Your task to perform on an android device: toggle translation in the chrome app Image 0: 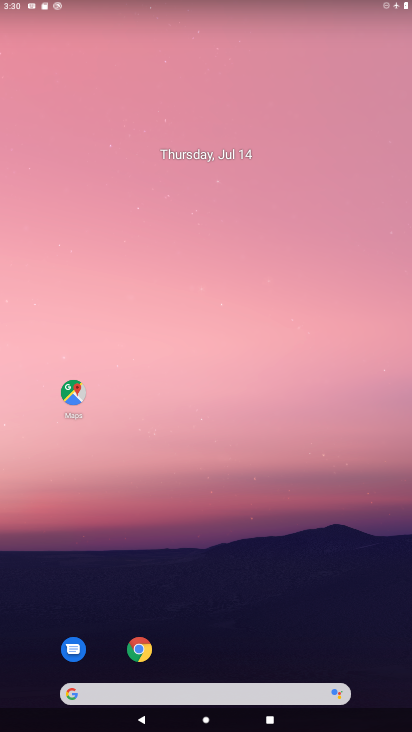
Step 0: drag from (249, 652) to (227, 247)
Your task to perform on an android device: toggle translation in the chrome app Image 1: 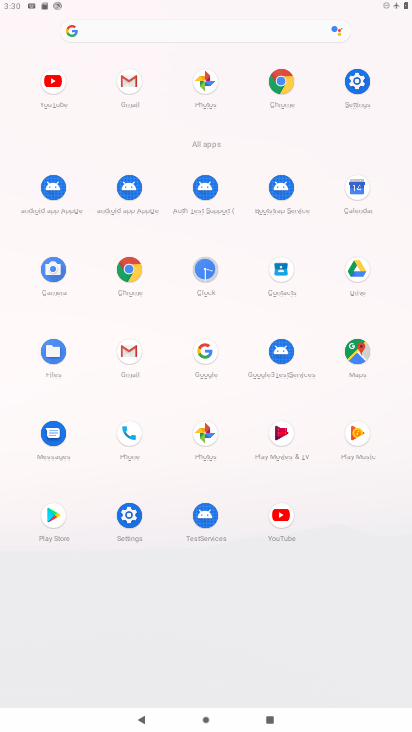
Step 1: click (272, 75)
Your task to perform on an android device: toggle translation in the chrome app Image 2: 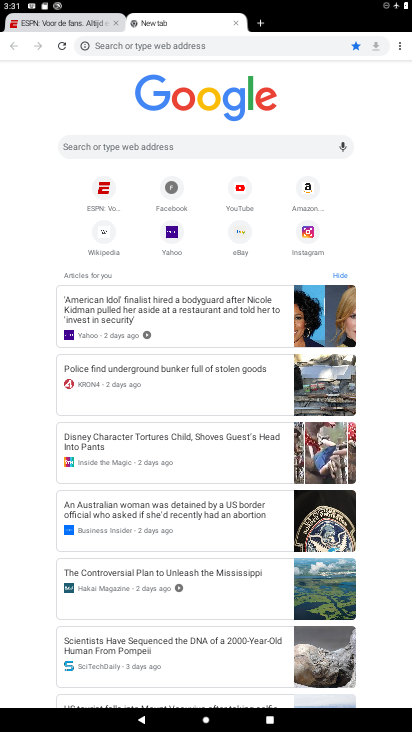
Step 2: click (403, 40)
Your task to perform on an android device: toggle translation in the chrome app Image 3: 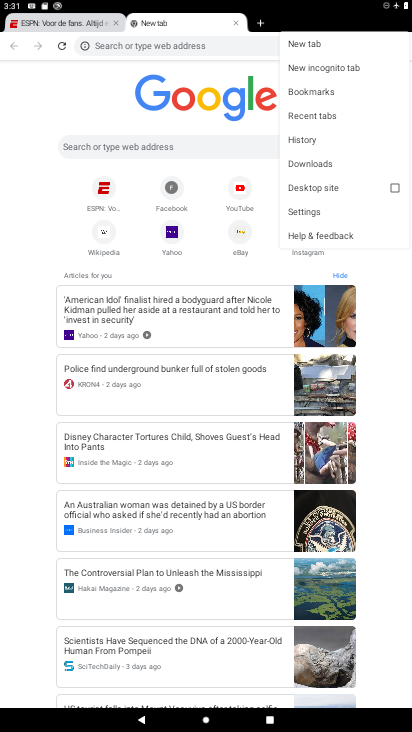
Step 3: click (304, 212)
Your task to perform on an android device: toggle translation in the chrome app Image 4: 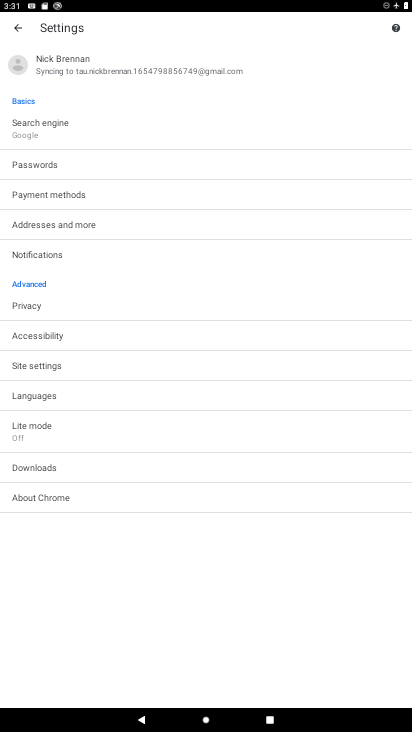
Step 4: click (55, 385)
Your task to perform on an android device: toggle translation in the chrome app Image 5: 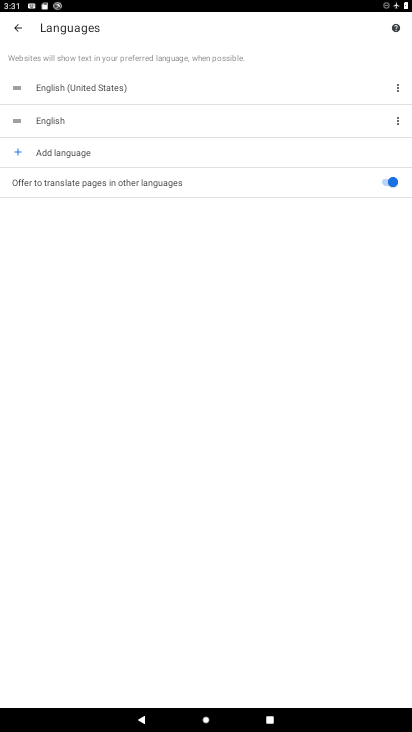
Step 5: click (382, 176)
Your task to perform on an android device: toggle translation in the chrome app Image 6: 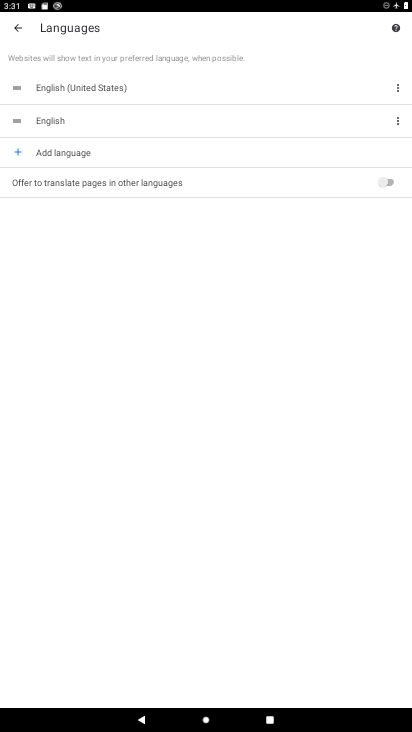
Step 6: task complete